Your task to perform on an android device: uninstall "Google Keep" Image 0: 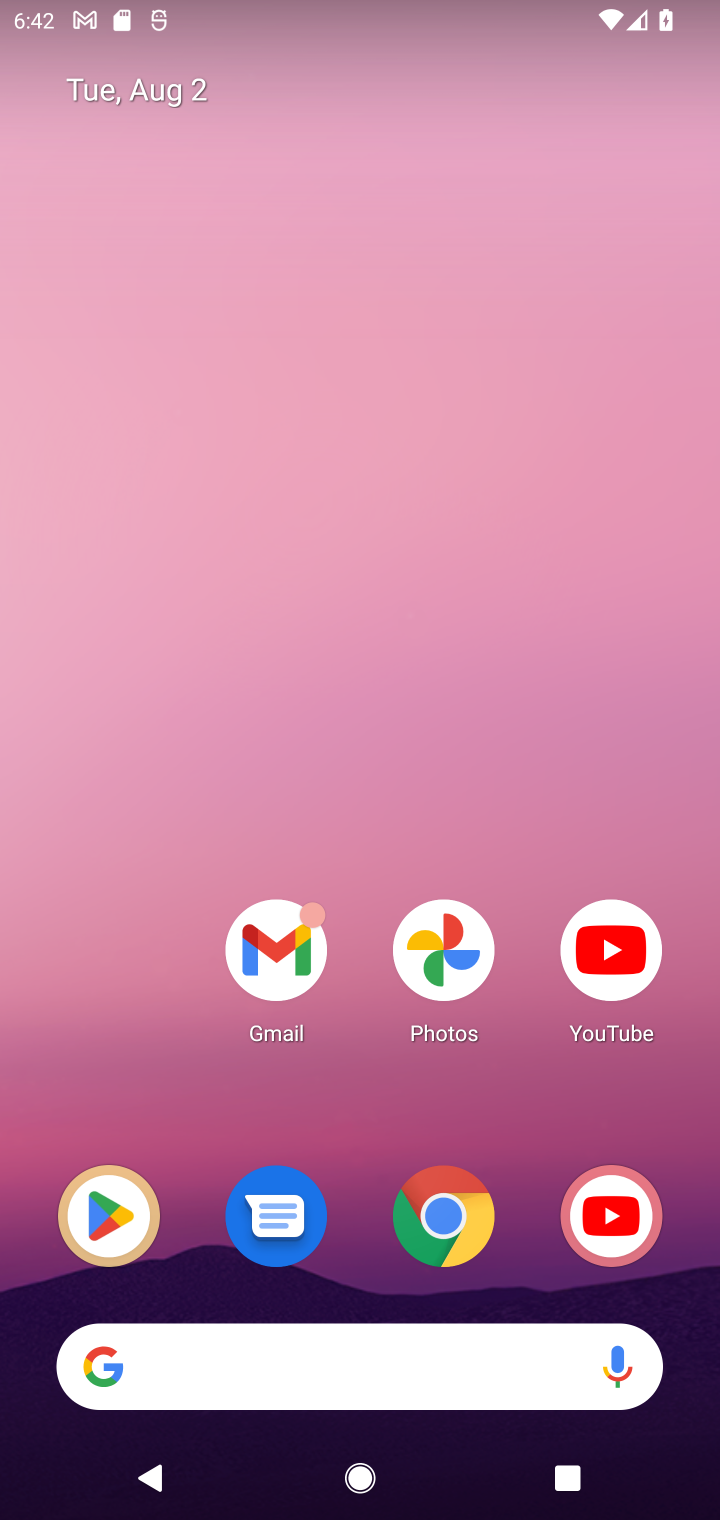
Step 0: press home button
Your task to perform on an android device: uninstall "Google Keep" Image 1: 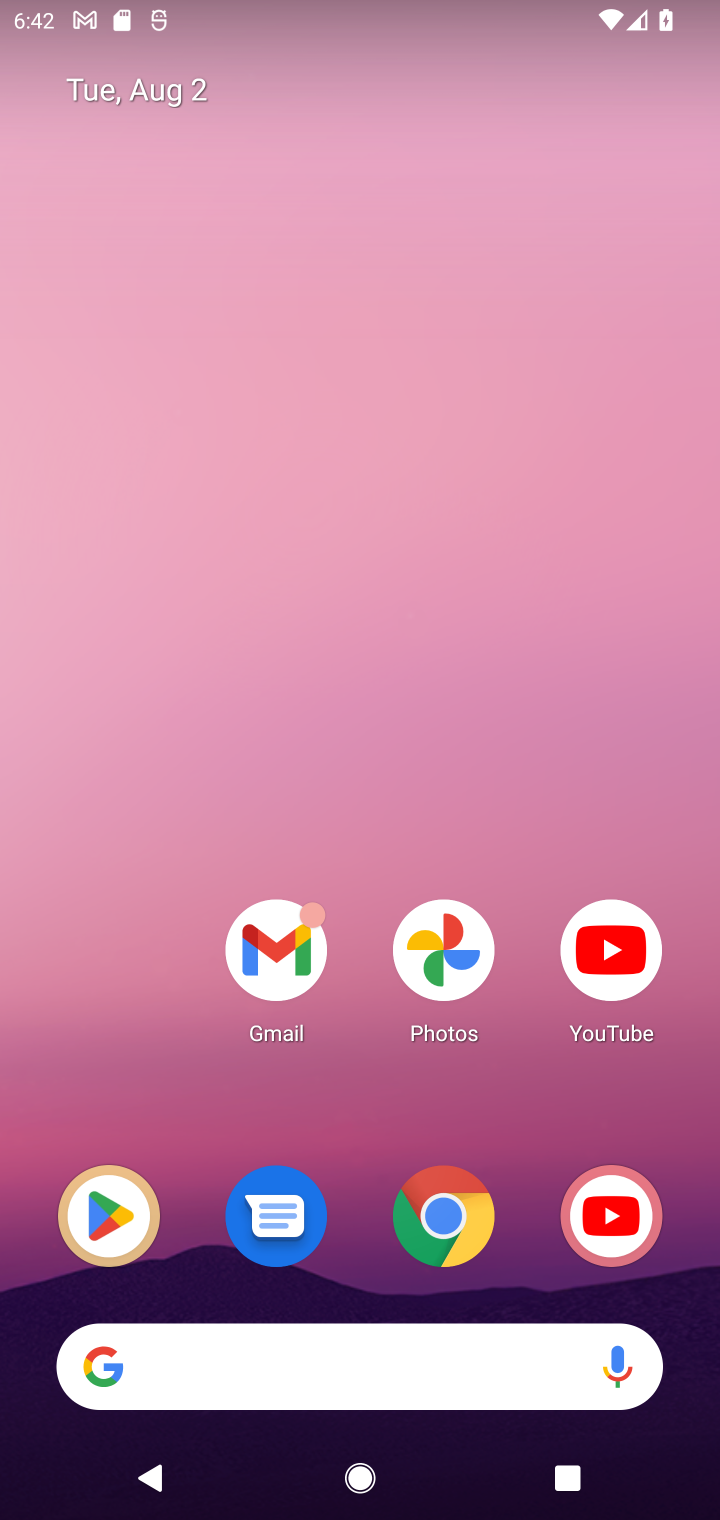
Step 1: click (116, 1203)
Your task to perform on an android device: uninstall "Google Keep" Image 2: 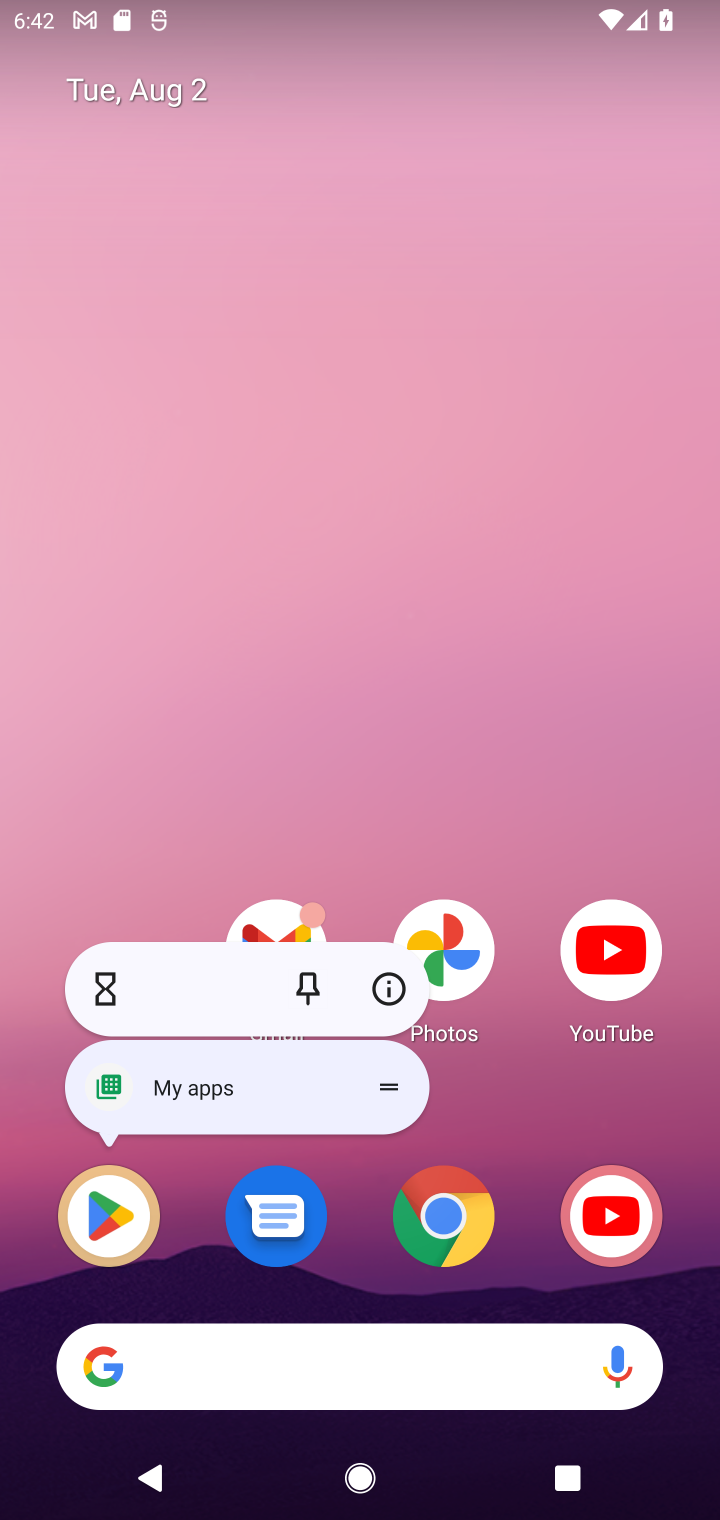
Step 2: click (108, 1214)
Your task to perform on an android device: uninstall "Google Keep" Image 3: 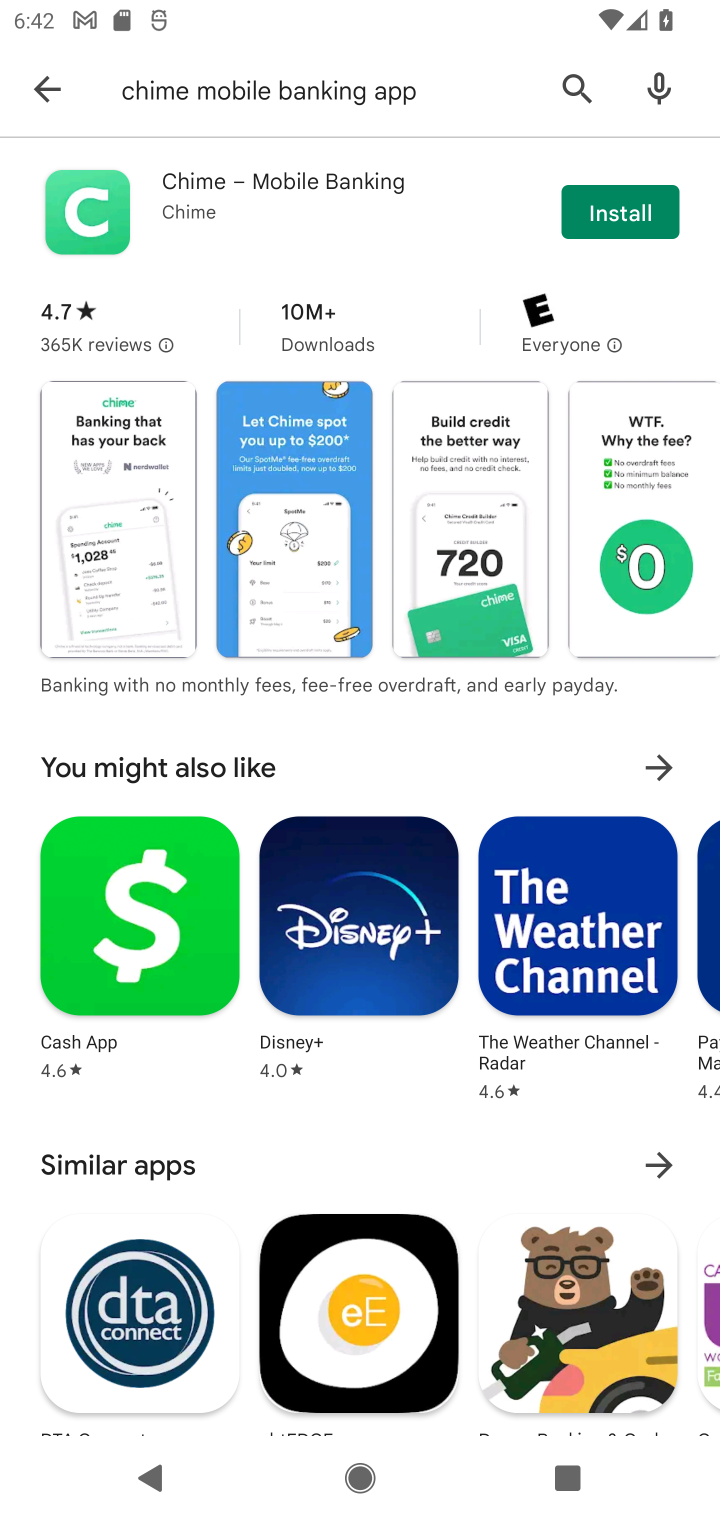
Step 3: click (576, 87)
Your task to perform on an android device: uninstall "Google Keep" Image 4: 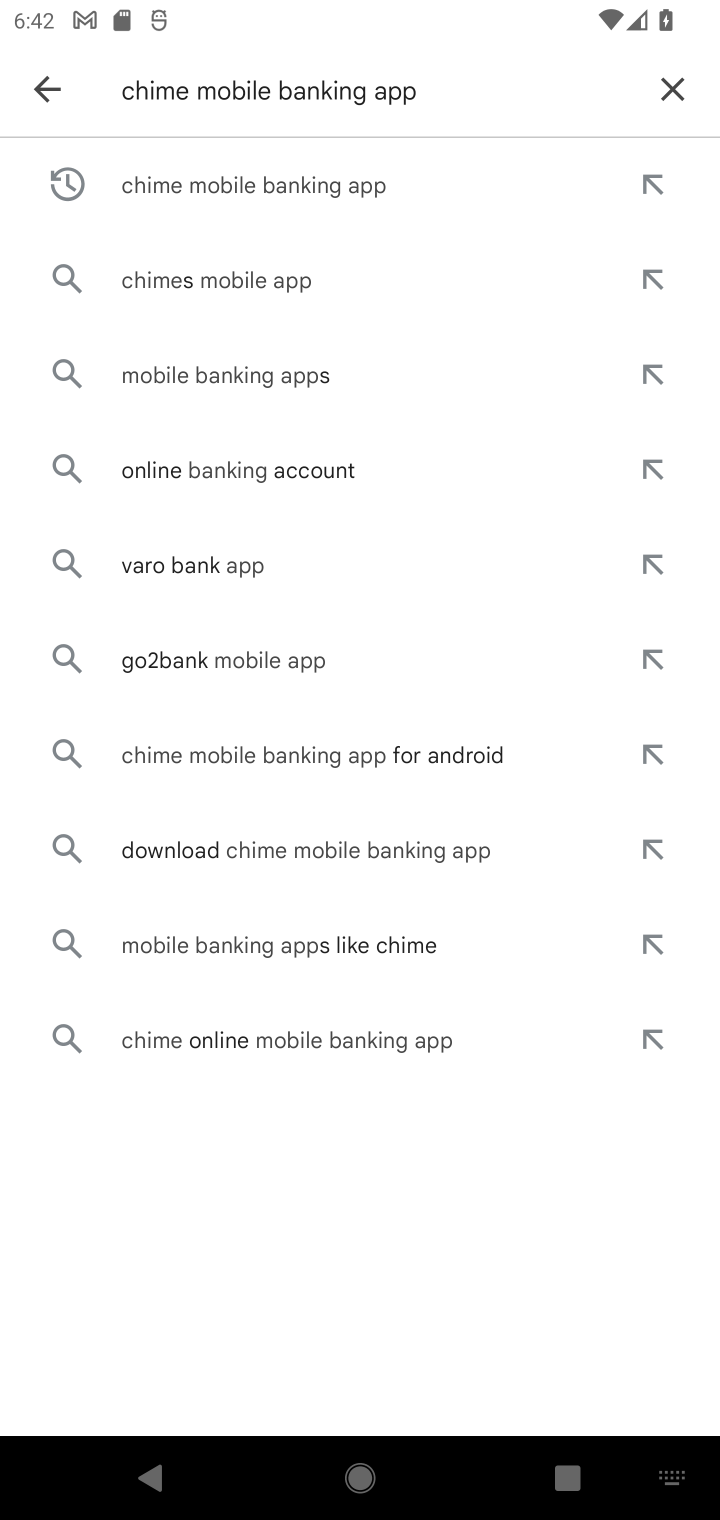
Step 4: click (673, 80)
Your task to perform on an android device: uninstall "Google Keep" Image 5: 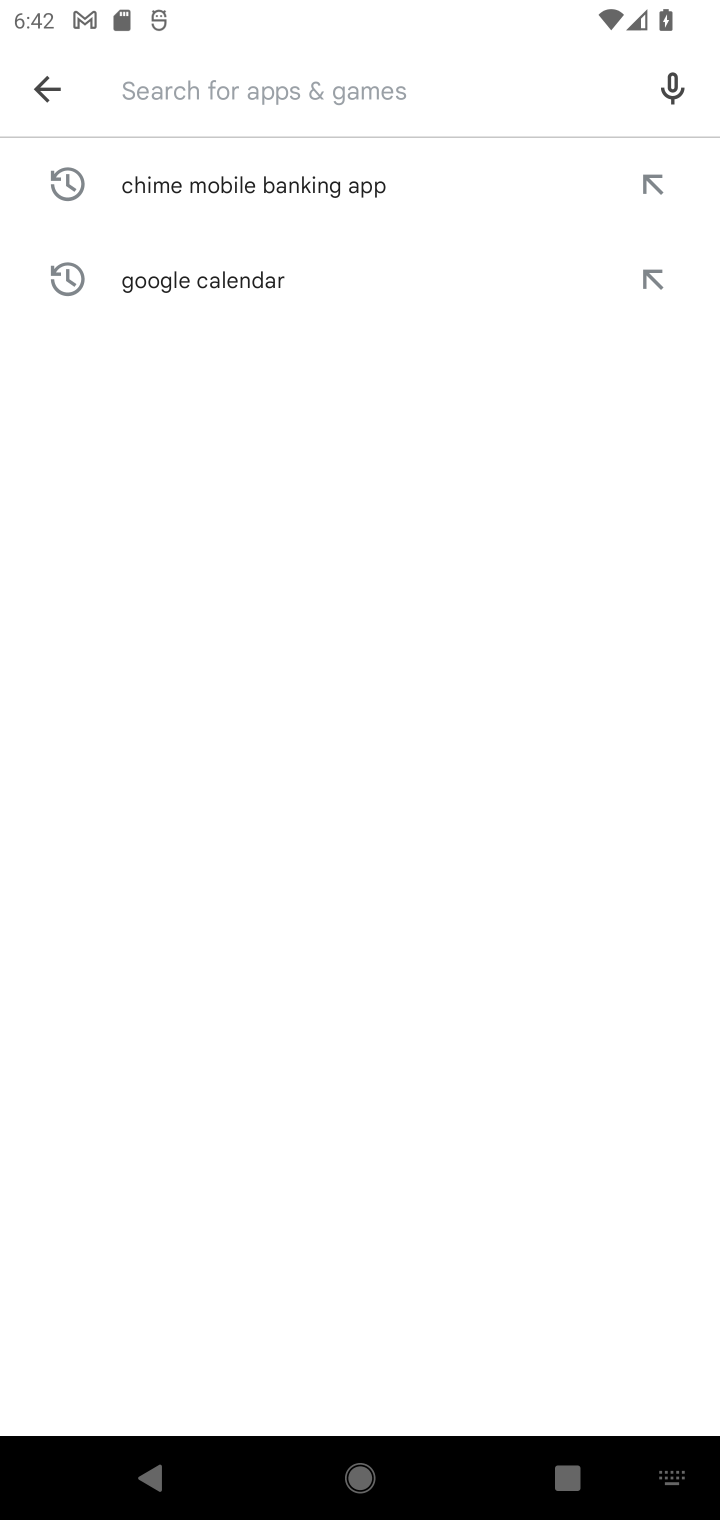
Step 5: type "Google Keep"
Your task to perform on an android device: uninstall "Google Keep" Image 6: 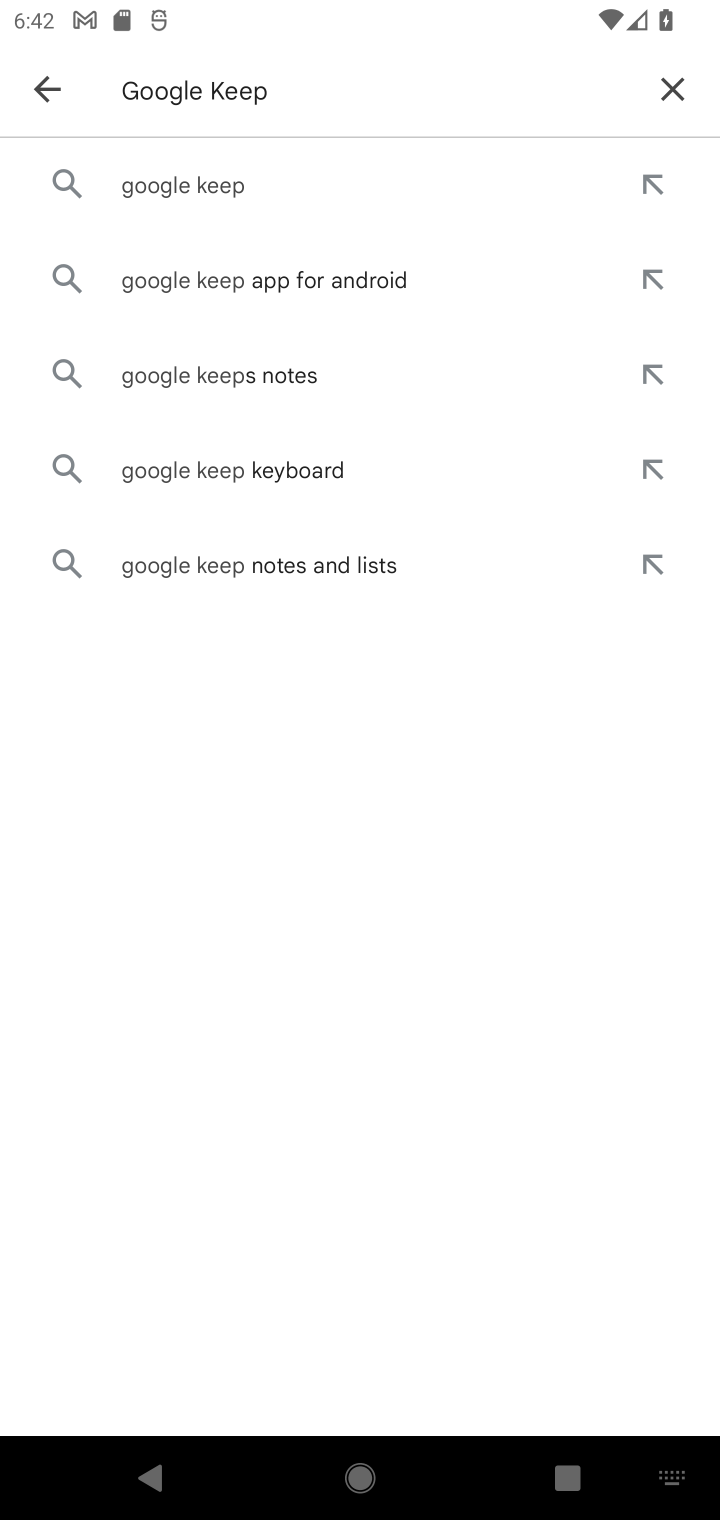
Step 6: click (233, 169)
Your task to perform on an android device: uninstall "Google Keep" Image 7: 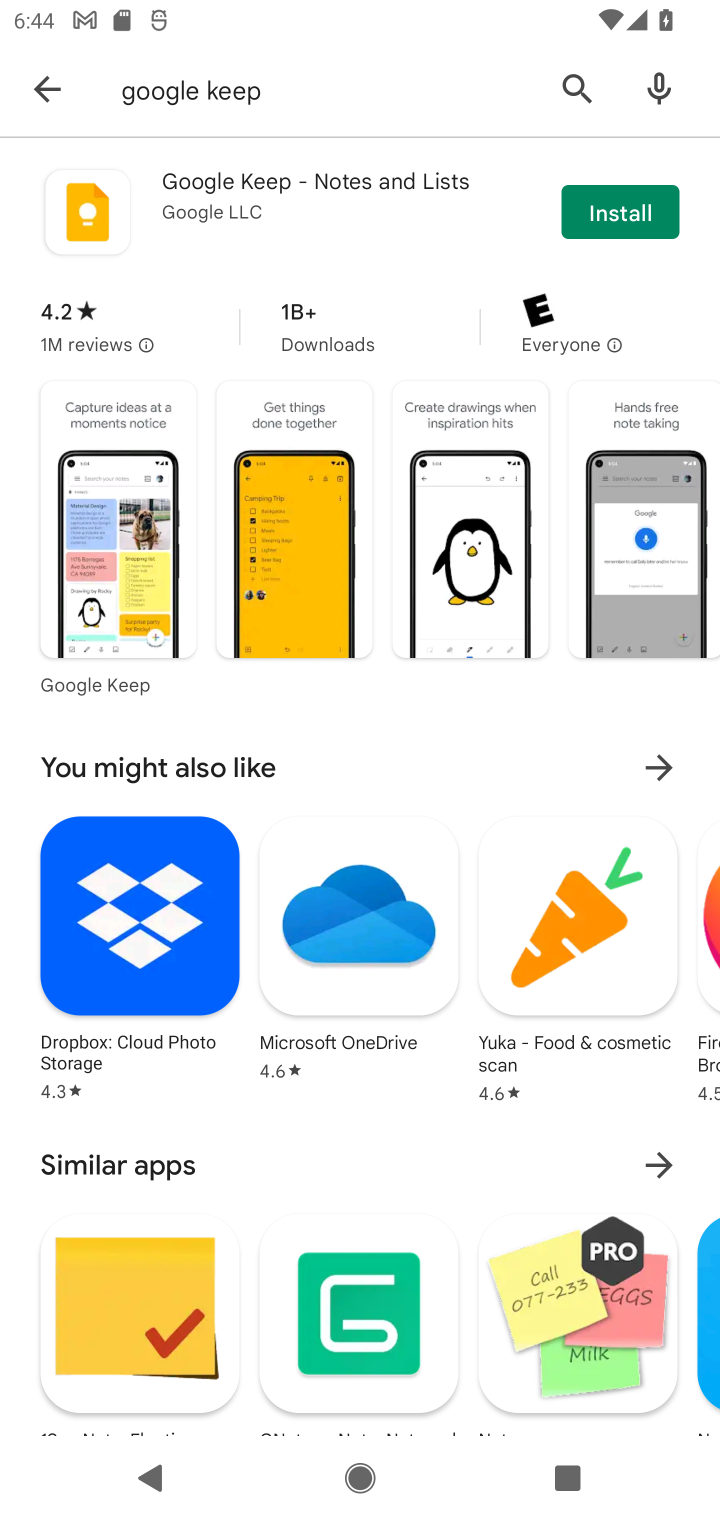
Step 7: task complete